Your task to perform on an android device: Go to network settings Image 0: 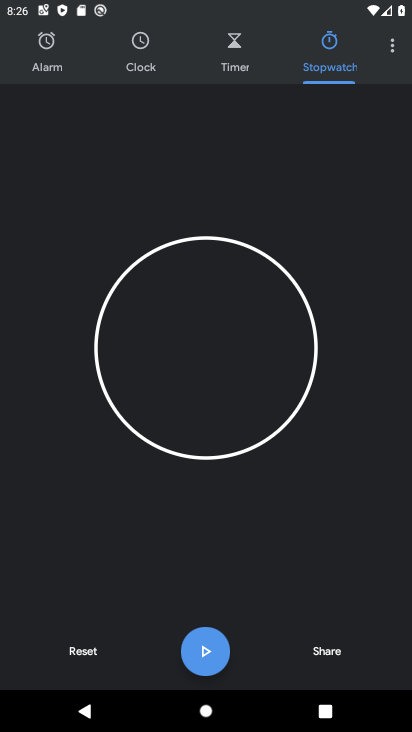
Step 0: press home button
Your task to perform on an android device: Go to network settings Image 1: 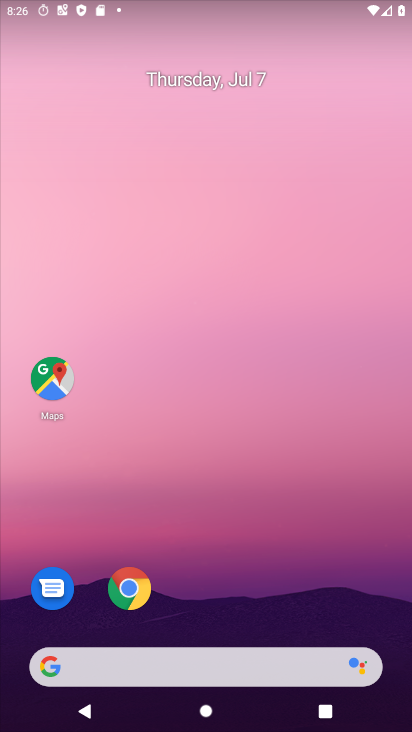
Step 1: drag from (146, 673) to (271, 93)
Your task to perform on an android device: Go to network settings Image 2: 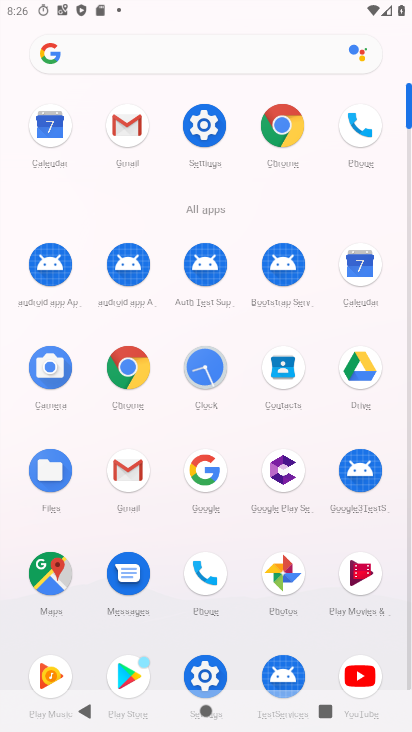
Step 2: click (212, 125)
Your task to perform on an android device: Go to network settings Image 3: 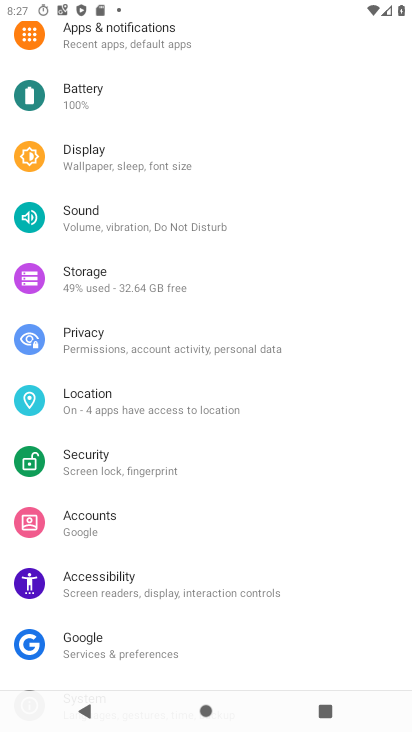
Step 3: drag from (298, 76) to (215, 615)
Your task to perform on an android device: Go to network settings Image 4: 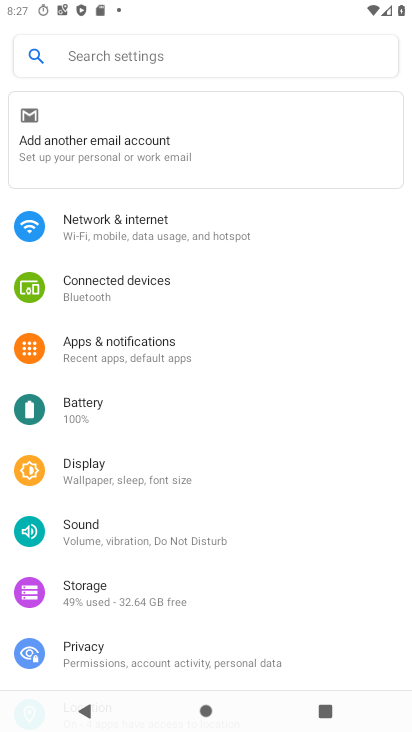
Step 4: click (138, 226)
Your task to perform on an android device: Go to network settings Image 5: 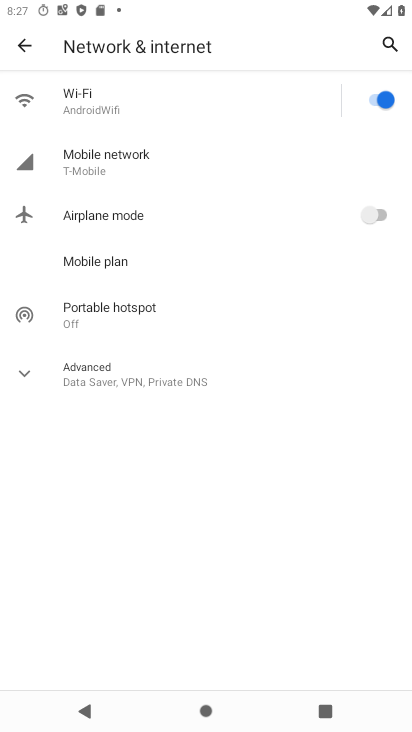
Step 5: click (120, 166)
Your task to perform on an android device: Go to network settings Image 6: 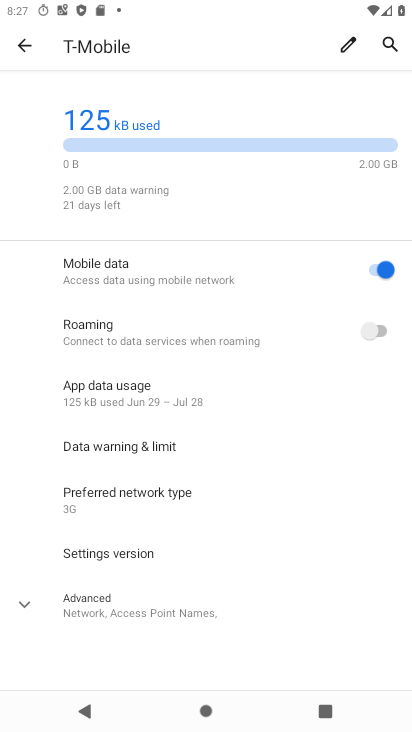
Step 6: task complete